Your task to perform on an android device: What's the weather today? Image 0: 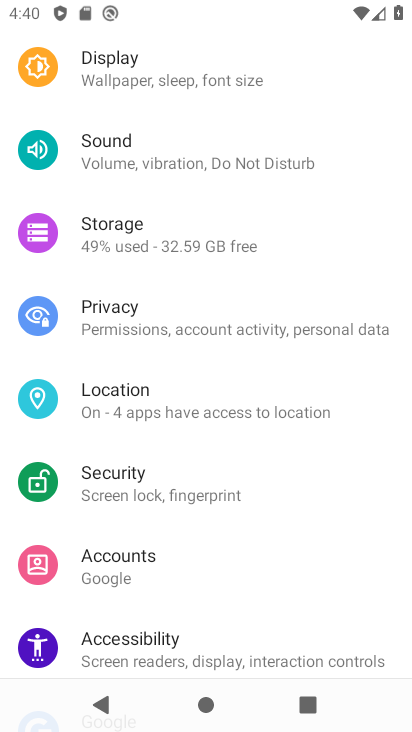
Step 0: press home button
Your task to perform on an android device: What's the weather today? Image 1: 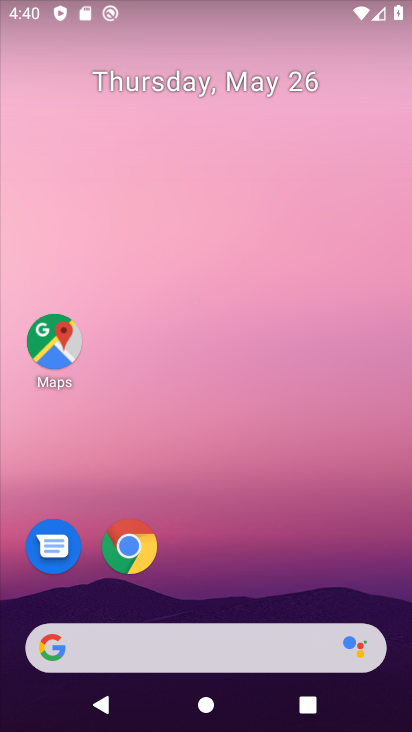
Step 1: click (145, 551)
Your task to perform on an android device: What's the weather today? Image 2: 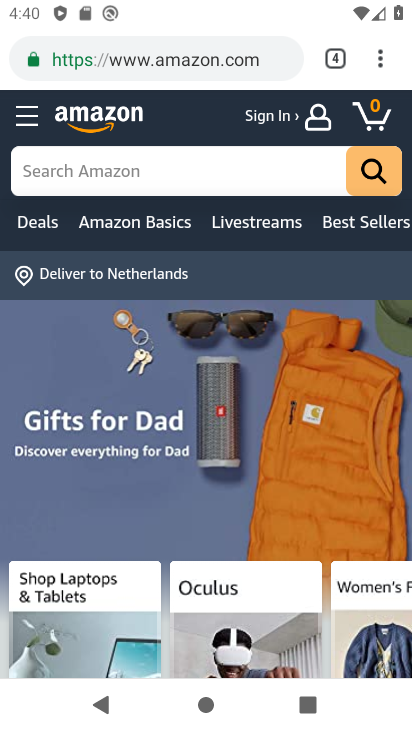
Step 2: click (202, 64)
Your task to perform on an android device: What's the weather today? Image 3: 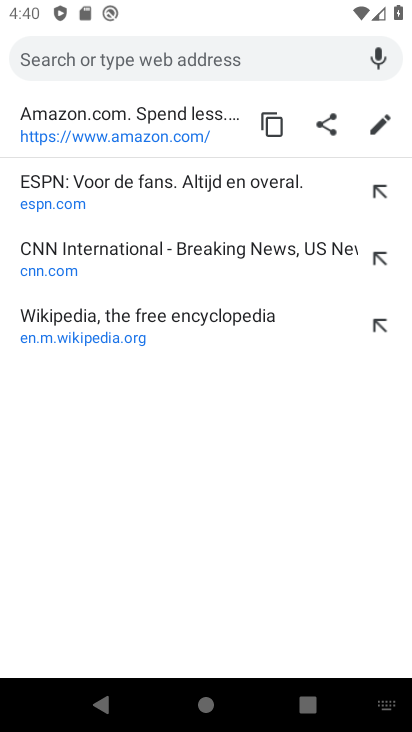
Step 3: drag from (154, 728) to (349, 727)
Your task to perform on an android device: What's the weather today? Image 4: 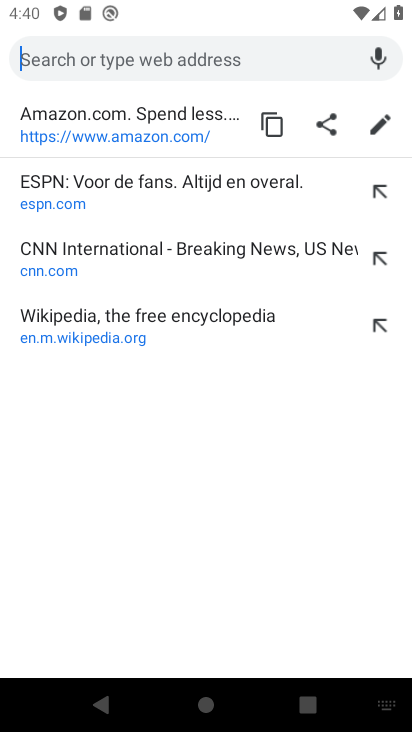
Step 4: type "What's the weather today?"
Your task to perform on an android device: What's the weather today? Image 5: 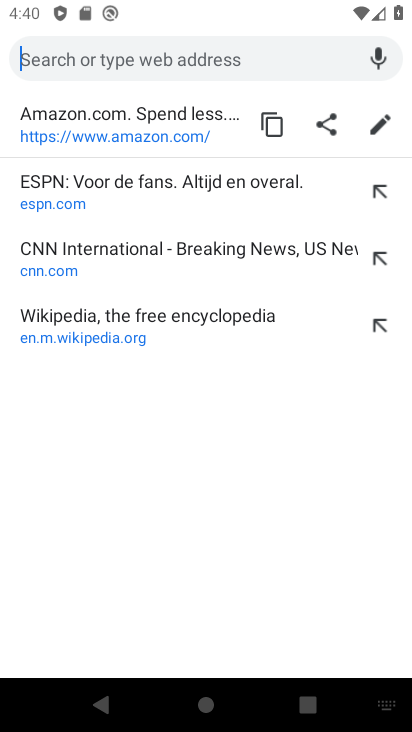
Step 5: drag from (349, 727) to (410, 163)
Your task to perform on an android device: What's the weather today? Image 6: 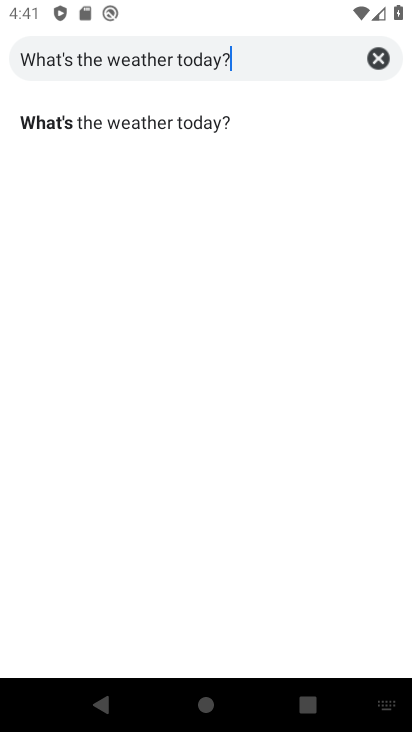
Step 6: click (195, 107)
Your task to perform on an android device: What's the weather today? Image 7: 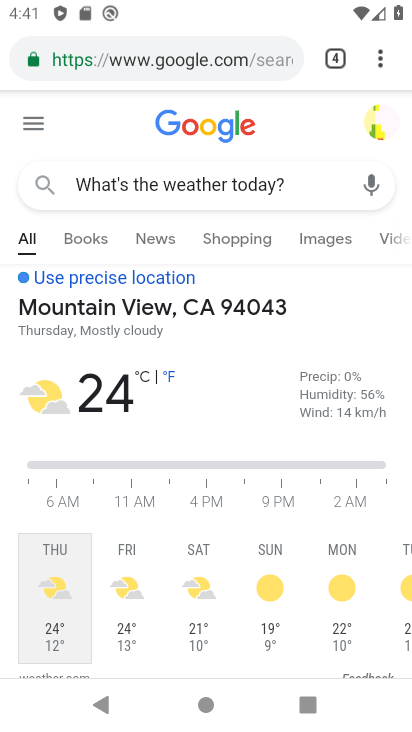
Step 7: task complete